Your task to perform on an android device: show emergency info Image 0: 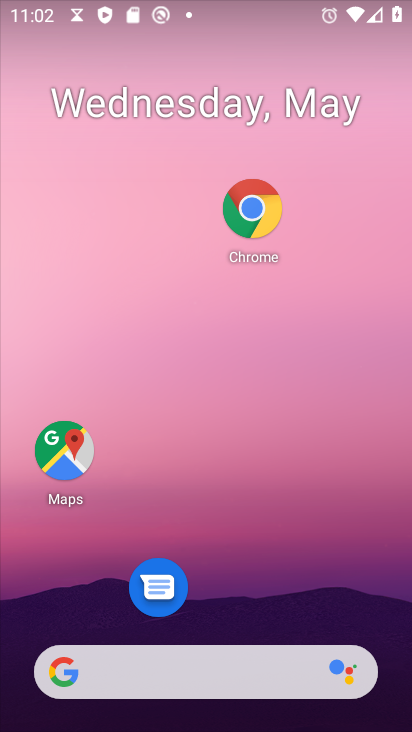
Step 0: drag from (244, 606) to (338, 6)
Your task to perform on an android device: show emergency info Image 1: 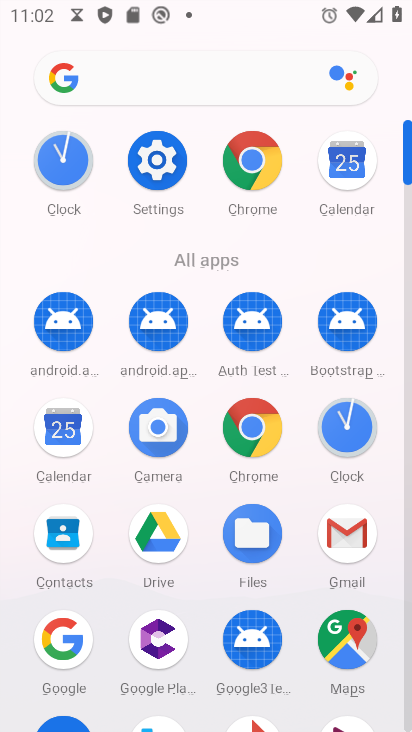
Step 1: click (160, 162)
Your task to perform on an android device: show emergency info Image 2: 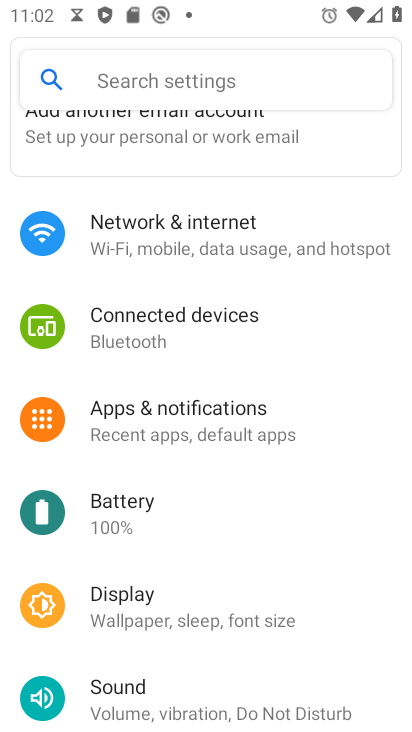
Step 2: drag from (127, 588) to (195, 172)
Your task to perform on an android device: show emergency info Image 3: 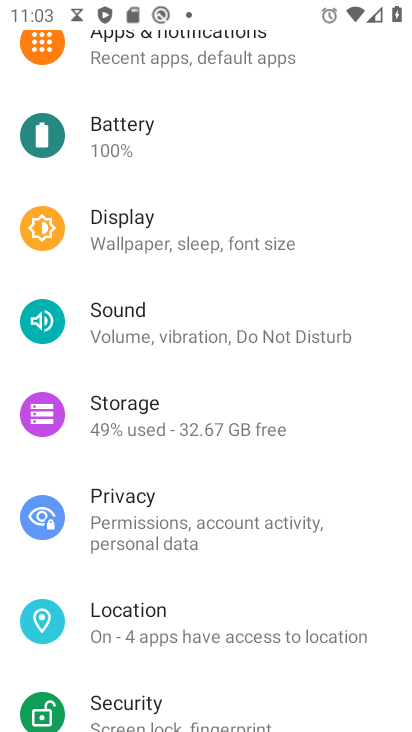
Step 3: click (240, 120)
Your task to perform on an android device: show emergency info Image 4: 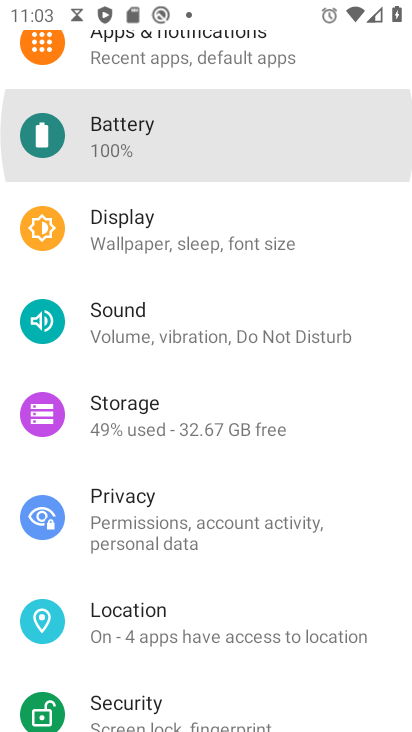
Step 4: drag from (216, 672) to (310, 21)
Your task to perform on an android device: show emergency info Image 5: 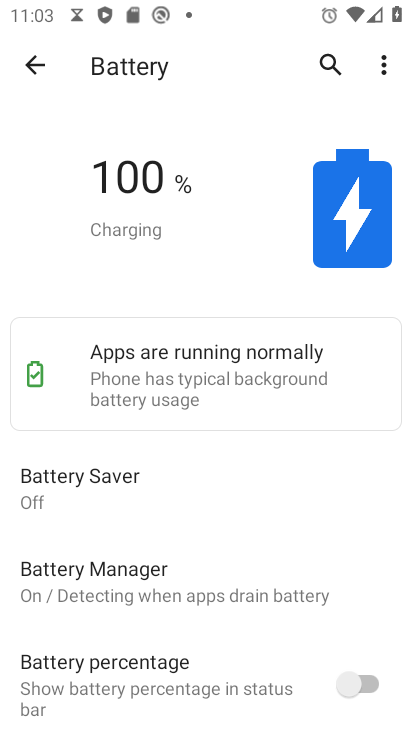
Step 5: click (31, 56)
Your task to perform on an android device: show emergency info Image 6: 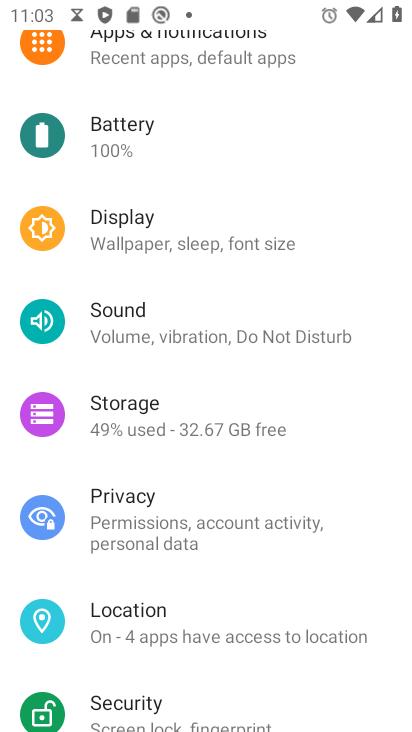
Step 6: drag from (201, 578) to (278, 193)
Your task to perform on an android device: show emergency info Image 7: 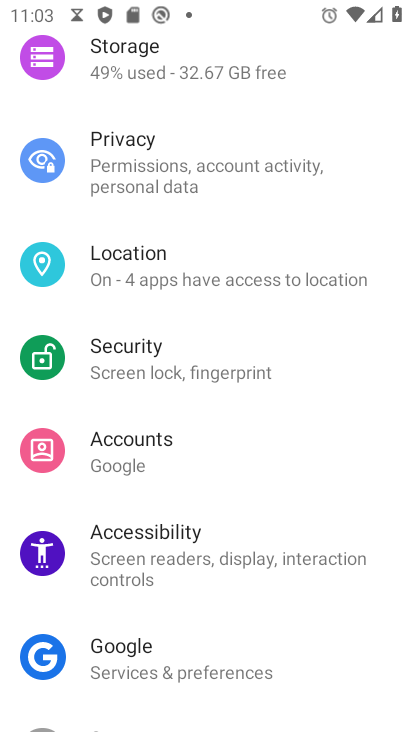
Step 7: drag from (210, 636) to (286, 220)
Your task to perform on an android device: show emergency info Image 8: 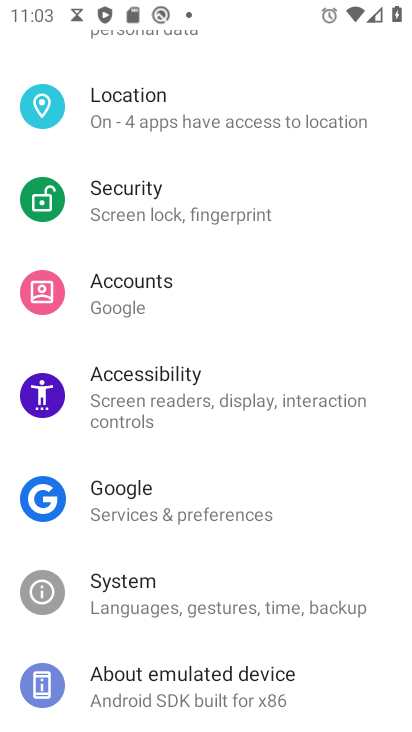
Step 8: click (200, 697)
Your task to perform on an android device: show emergency info Image 9: 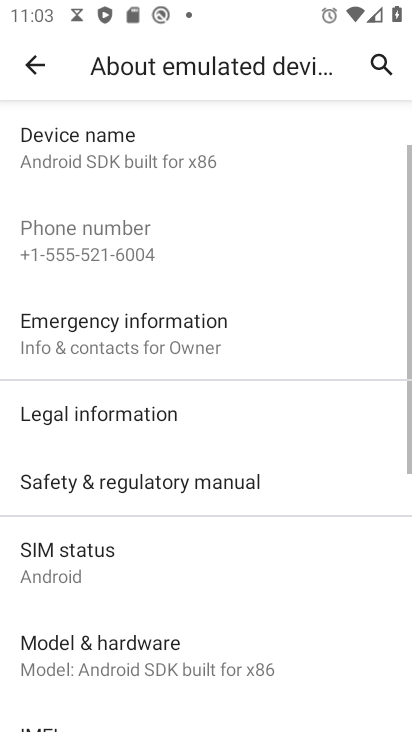
Step 9: click (55, 317)
Your task to perform on an android device: show emergency info Image 10: 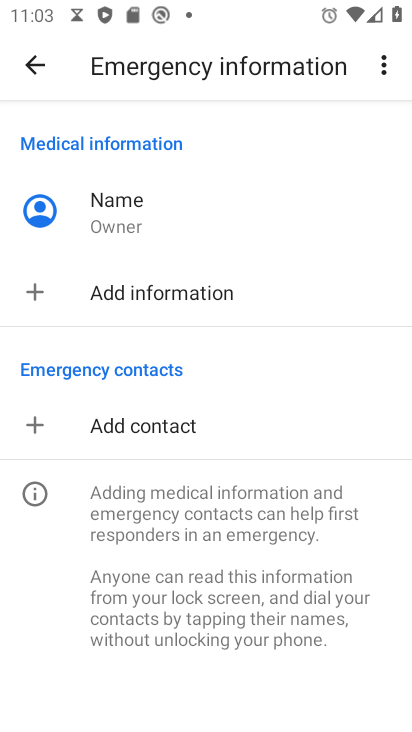
Step 10: task complete